Your task to perform on an android device: make emails show in primary in the gmail app Image 0: 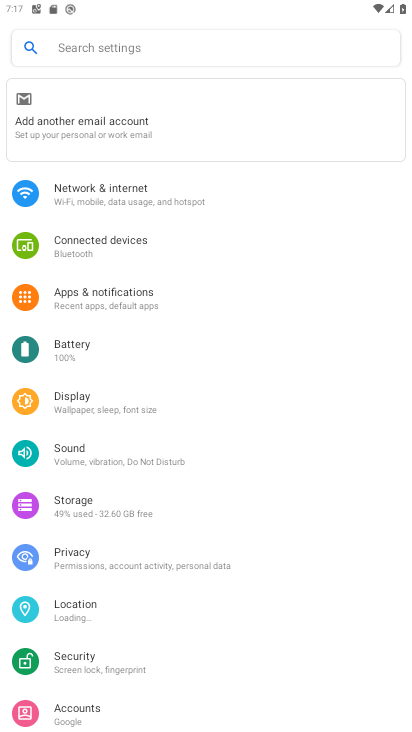
Step 0: press home button
Your task to perform on an android device: make emails show in primary in the gmail app Image 1: 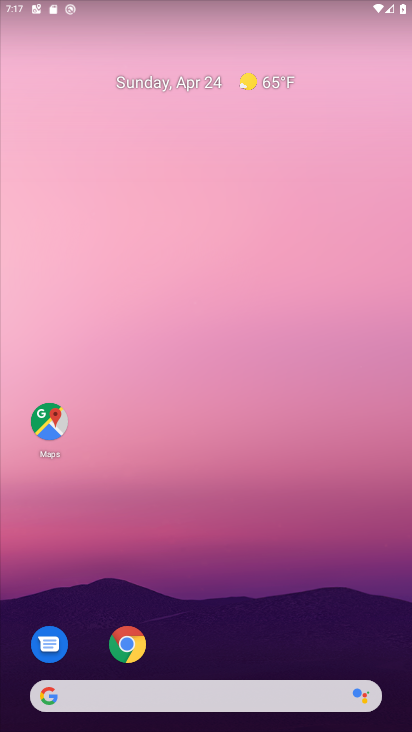
Step 1: drag from (216, 667) to (219, 52)
Your task to perform on an android device: make emails show in primary in the gmail app Image 2: 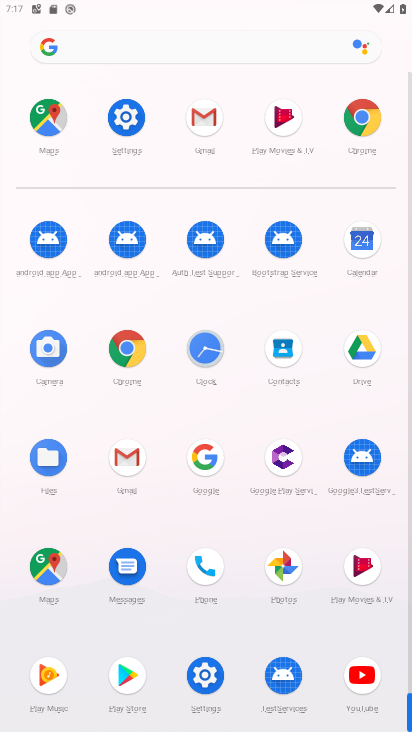
Step 2: click (125, 454)
Your task to perform on an android device: make emails show in primary in the gmail app Image 3: 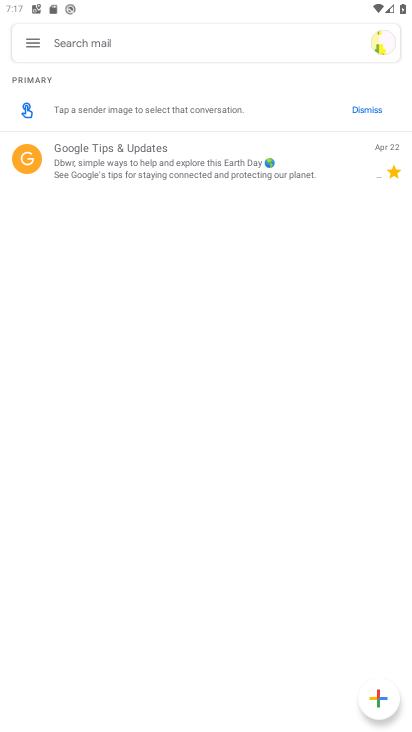
Step 3: click (32, 40)
Your task to perform on an android device: make emails show in primary in the gmail app Image 4: 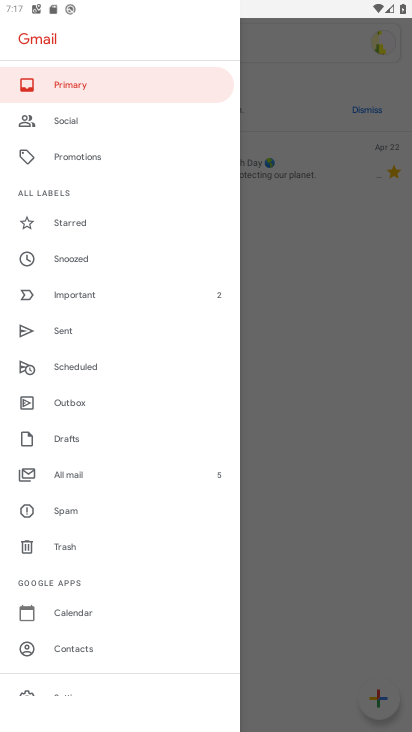
Step 4: drag from (114, 642) to (140, 122)
Your task to perform on an android device: make emails show in primary in the gmail app Image 5: 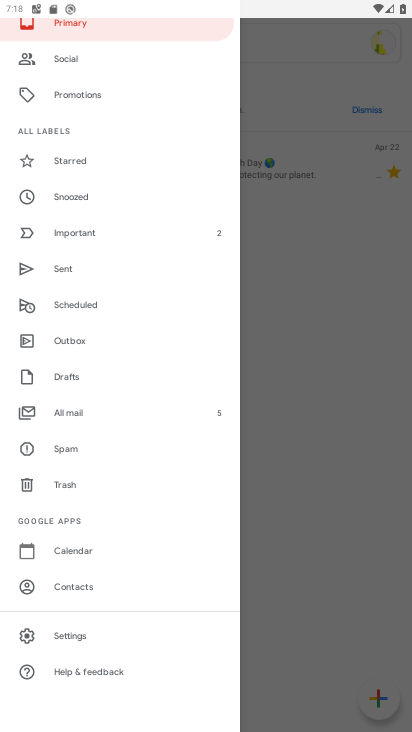
Step 5: click (94, 629)
Your task to perform on an android device: make emails show in primary in the gmail app Image 6: 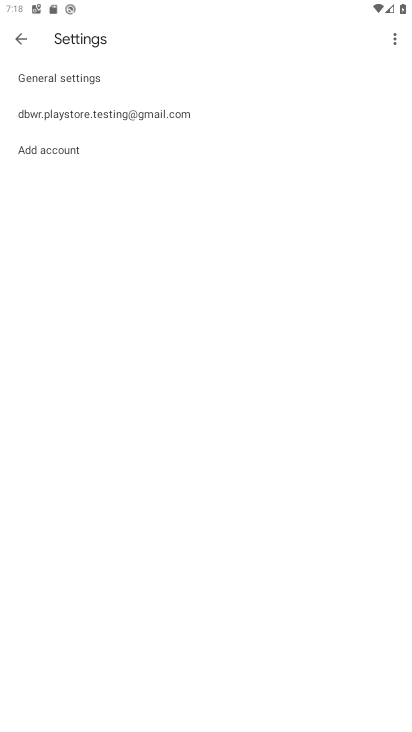
Step 6: click (145, 118)
Your task to perform on an android device: make emails show in primary in the gmail app Image 7: 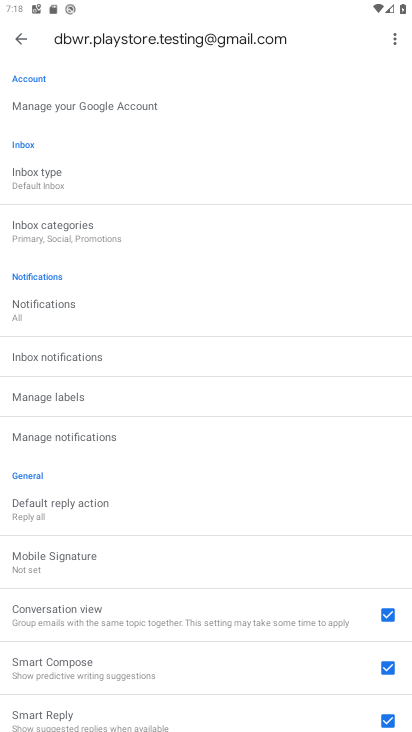
Step 7: click (66, 175)
Your task to perform on an android device: make emails show in primary in the gmail app Image 8: 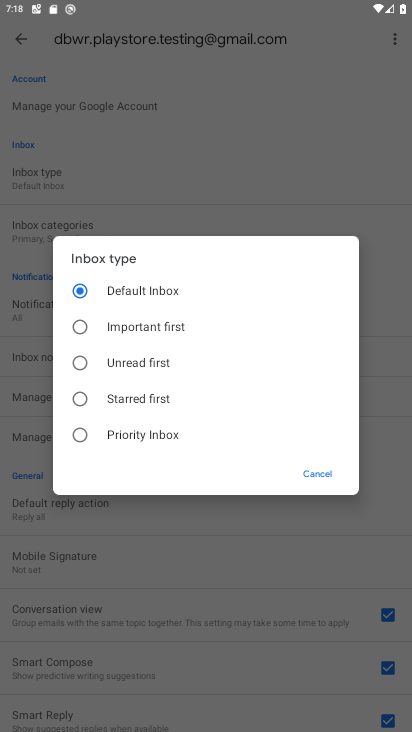
Step 8: click (93, 287)
Your task to perform on an android device: make emails show in primary in the gmail app Image 9: 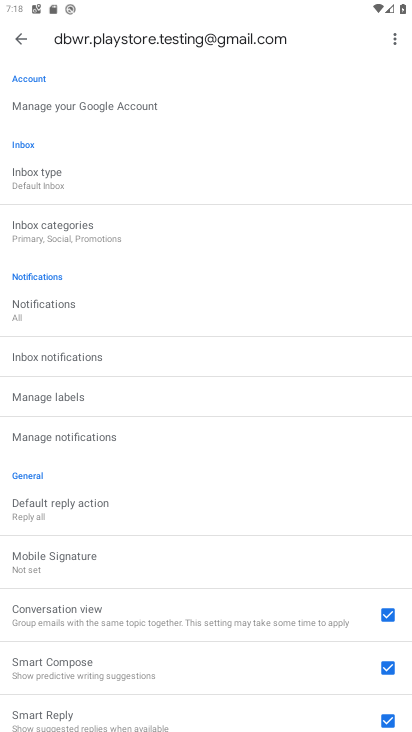
Step 9: task complete